Your task to perform on an android device: toggle location history Image 0: 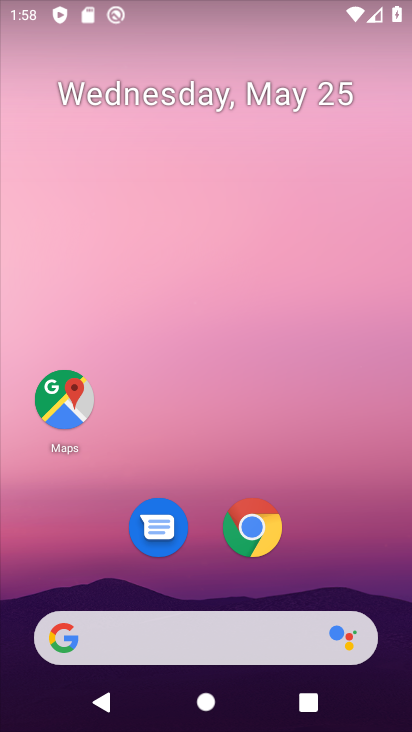
Step 0: drag from (200, 589) to (293, 182)
Your task to perform on an android device: toggle location history Image 1: 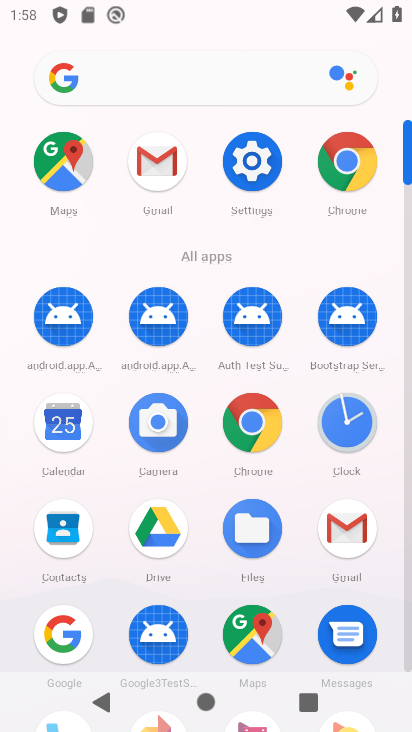
Step 1: click (245, 143)
Your task to perform on an android device: toggle location history Image 2: 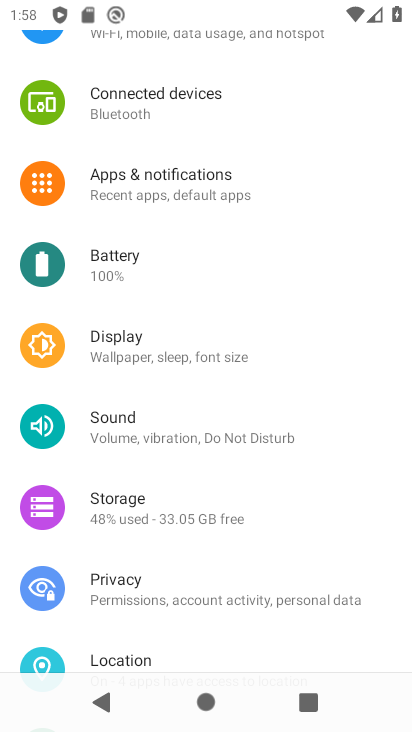
Step 2: click (152, 647)
Your task to perform on an android device: toggle location history Image 3: 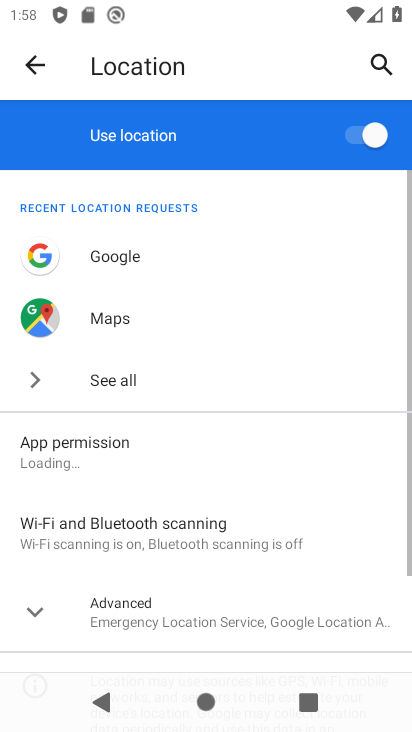
Step 3: drag from (169, 629) to (321, 254)
Your task to perform on an android device: toggle location history Image 4: 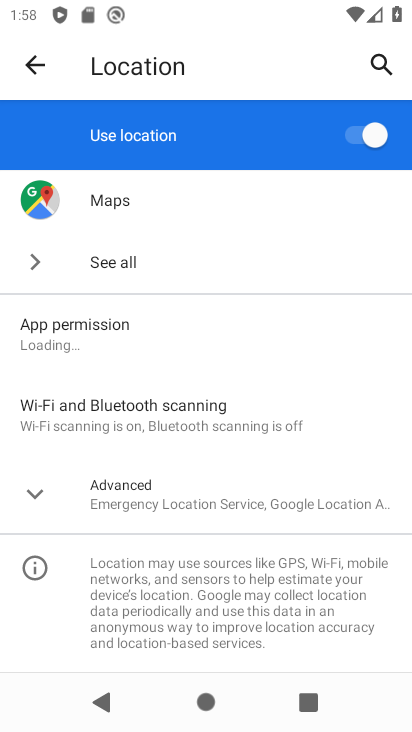
Step 4: click (219, 505)
Your task to perform on an android device: toggle location history Image 5: 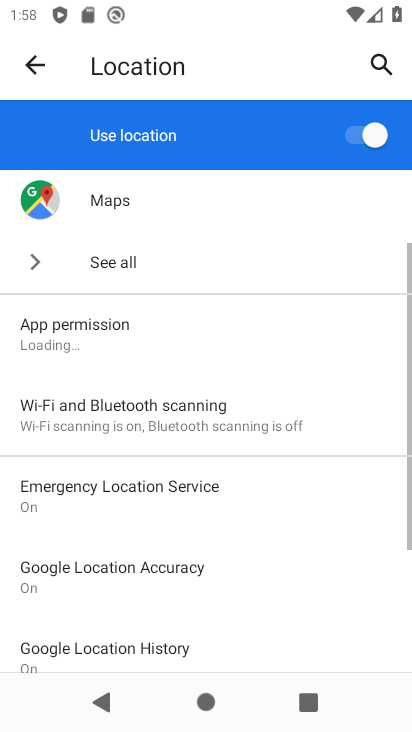
Step 5: drag from (218, 504) to (333, 198)
Your task to perform on an android device: toggle location history Image 6: 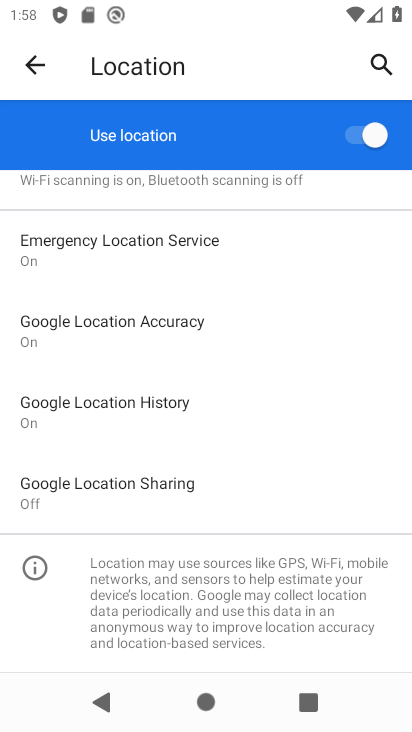
Step 6: click (151, 400)
Your task to perform on an android device: toggle location history Image 7: 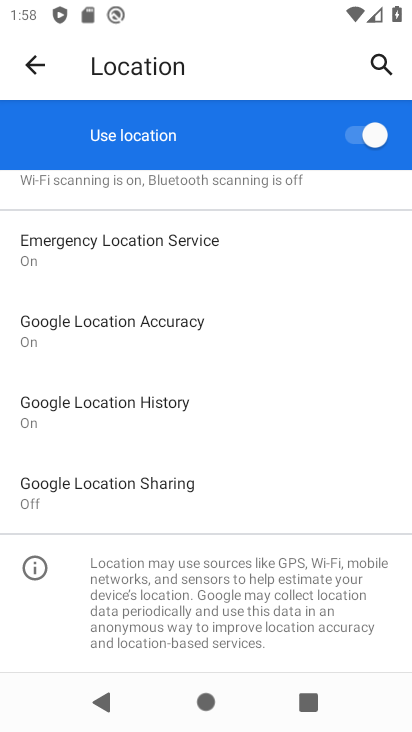
Step 7: click (151, 400)
Your task to perform on an android device: toggle location history Image 8: 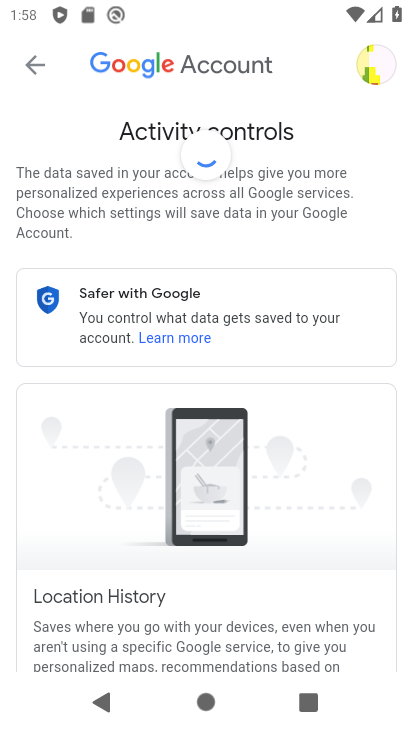
Step 8: drag from (256, 562) to (411, 362)
Your task to perform on an android device: toggle location history Image 9: 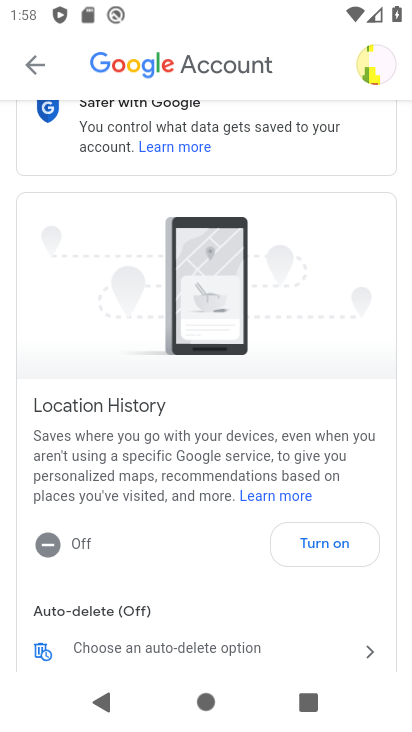
Step 9: click (336, 525)
Your task to perform on an android device: toggle location history Image 10: 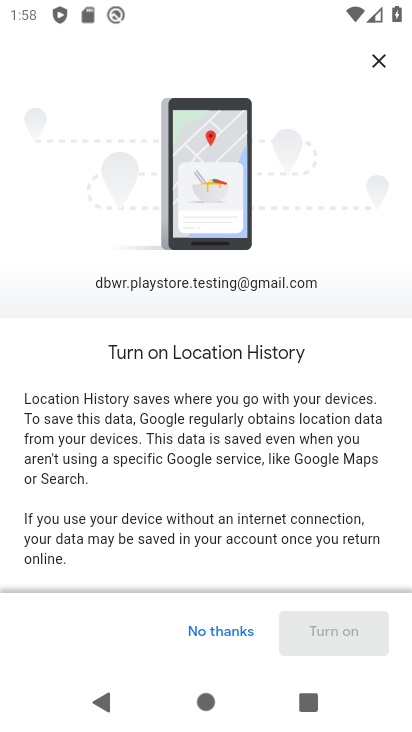
Step 10: drag from (283, 568) to (409, 530)
Your task to perform on an android device: toggle location history Image 11: 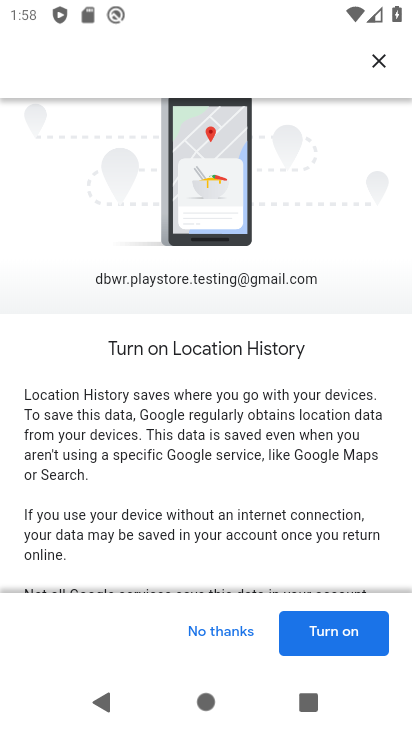
Step 11: click (327, 623)
Your task to perform on an android device: toggle location history Image 12: 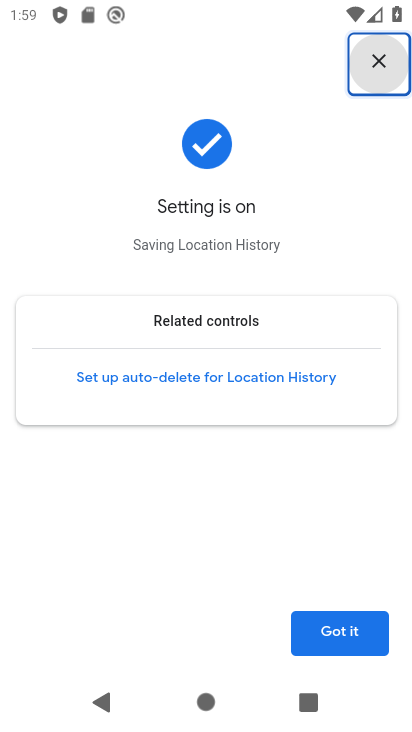
Step 12: task complete